Your task to perform on an android device: Install the Weather app Image 0: 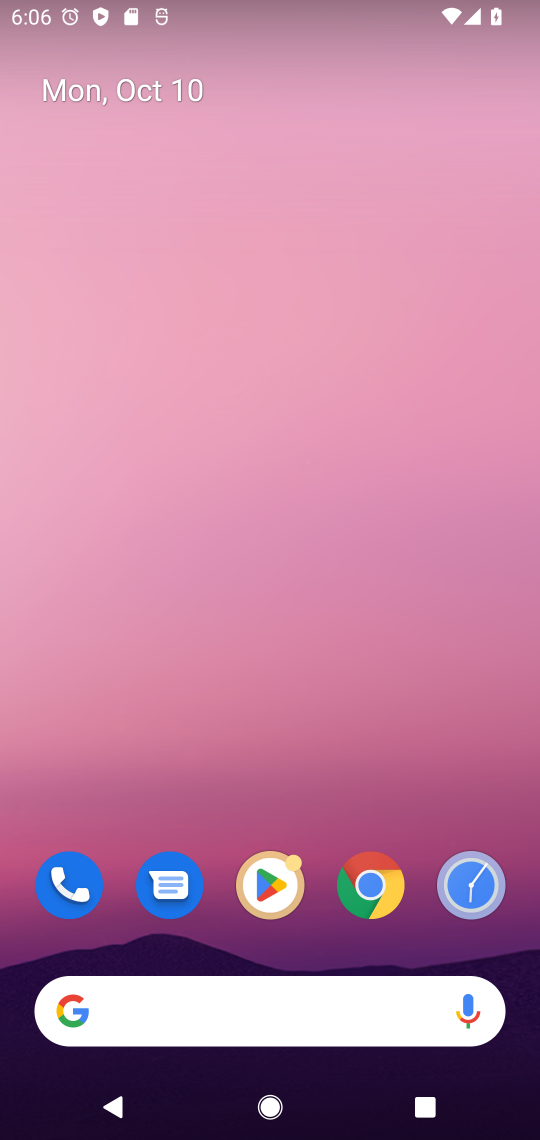
Step 0: click (282, 876)
Your task to perform on an android device: Install the Weather app Image 1: 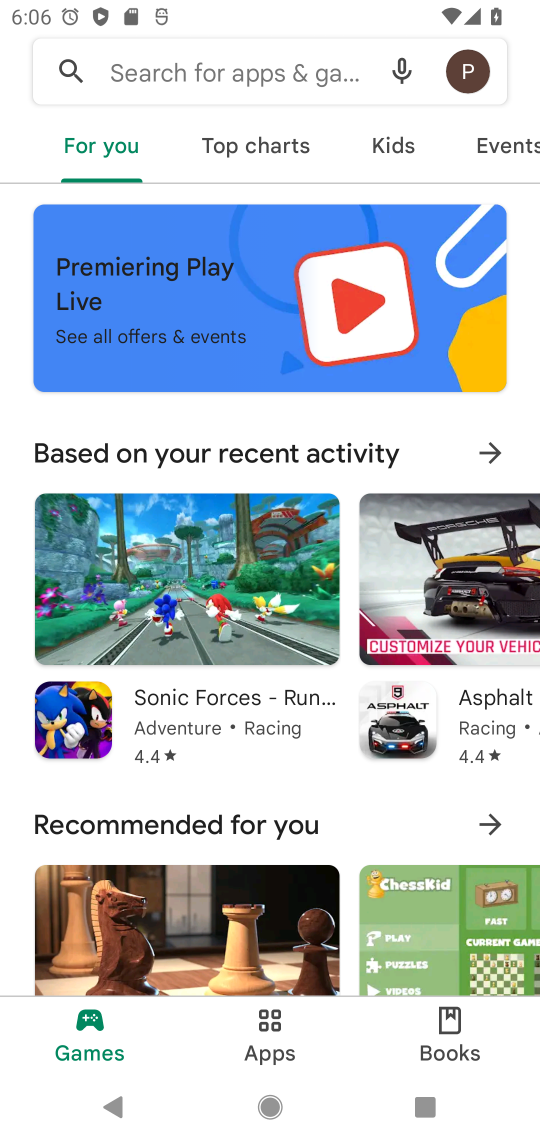
Step 1: click (288, 78)
Your task to perform on an android device: Install the Weather app Image 2: 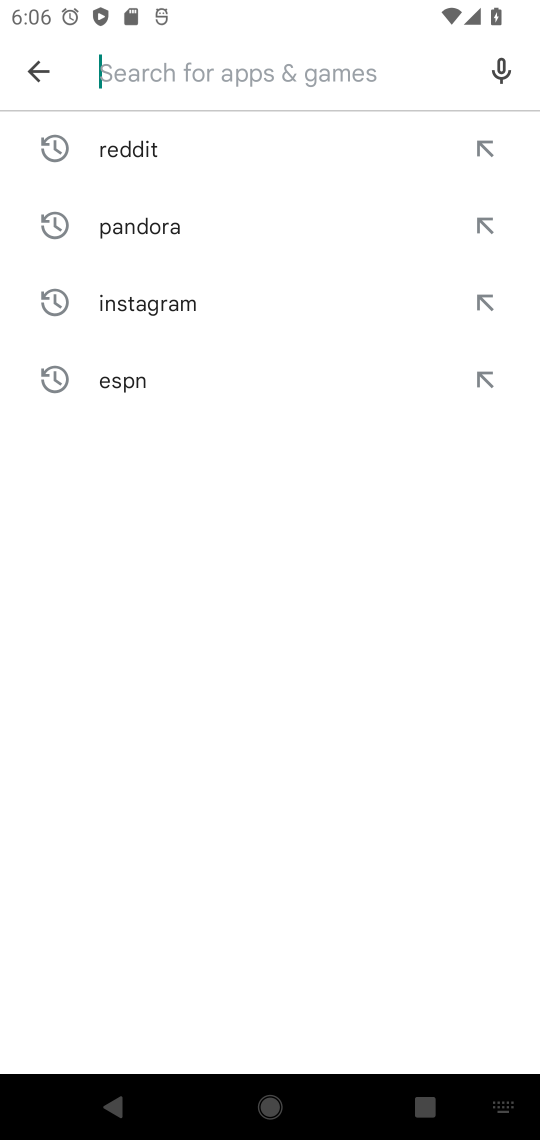
Step 2: type "Weather"
Your task to perform on an android device: Install the Weather app Image 3: 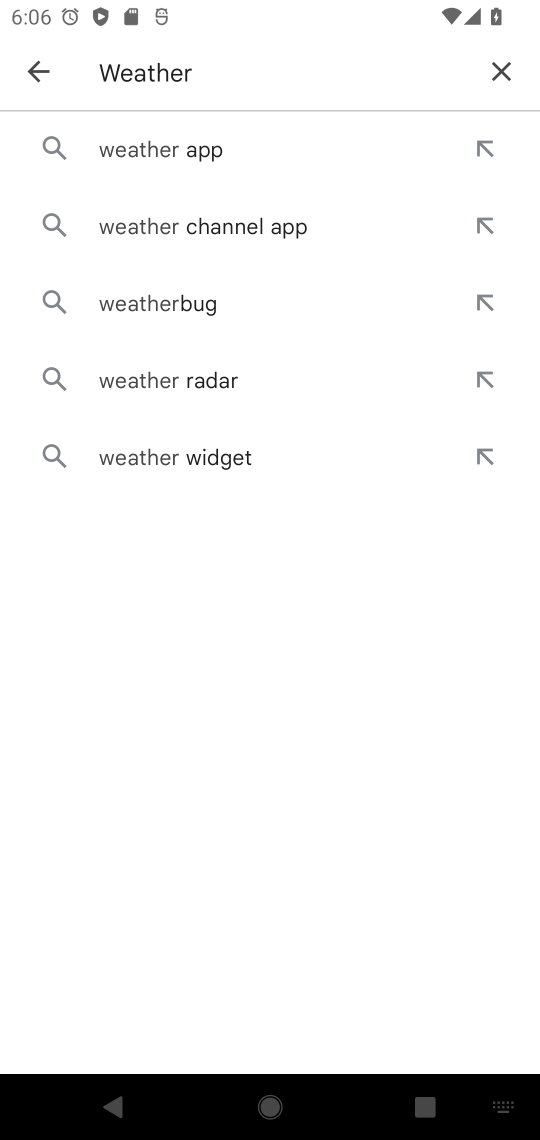
Step 3: click (232, 152)
Your task to perform on an android device: Install the Weather app Image 4: 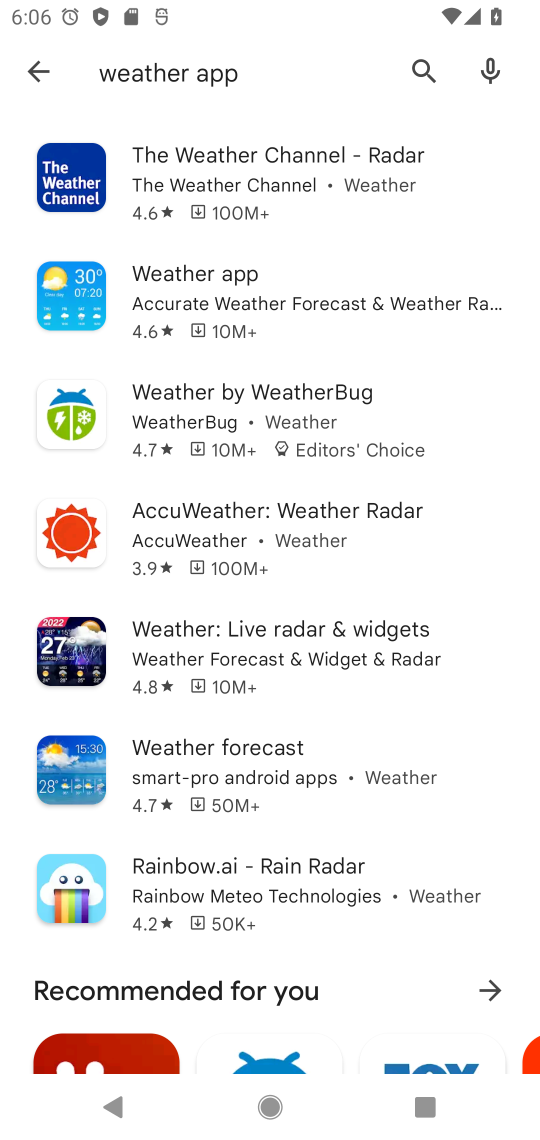
Step 4: click (174, 273)
Your task to perform on an android device: Install the Weather app Image 5: 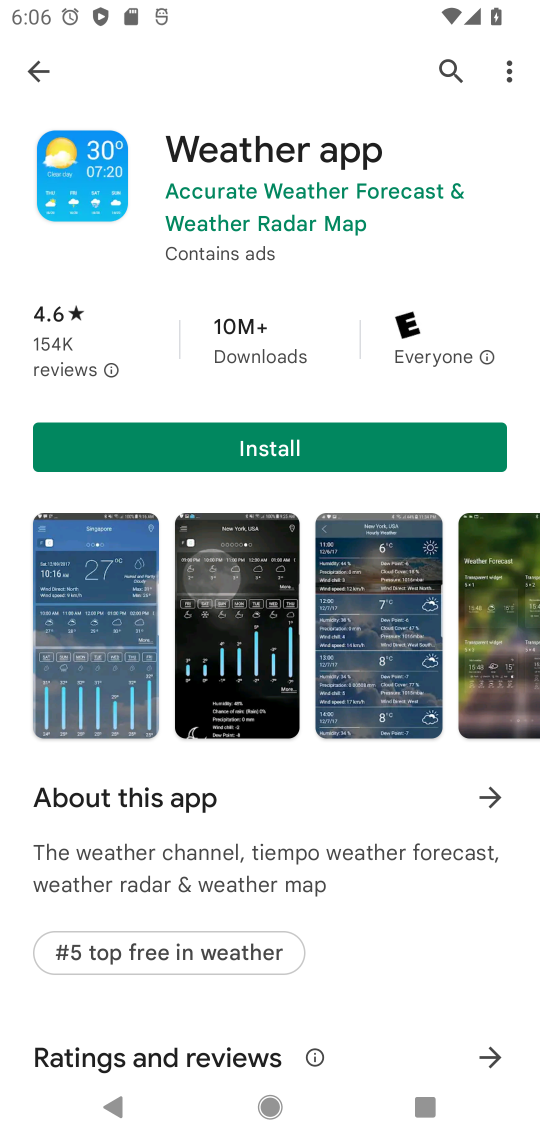
Step 5: click (296, 446)
Your task to perform on an android device: Install the Weather app Image 6: 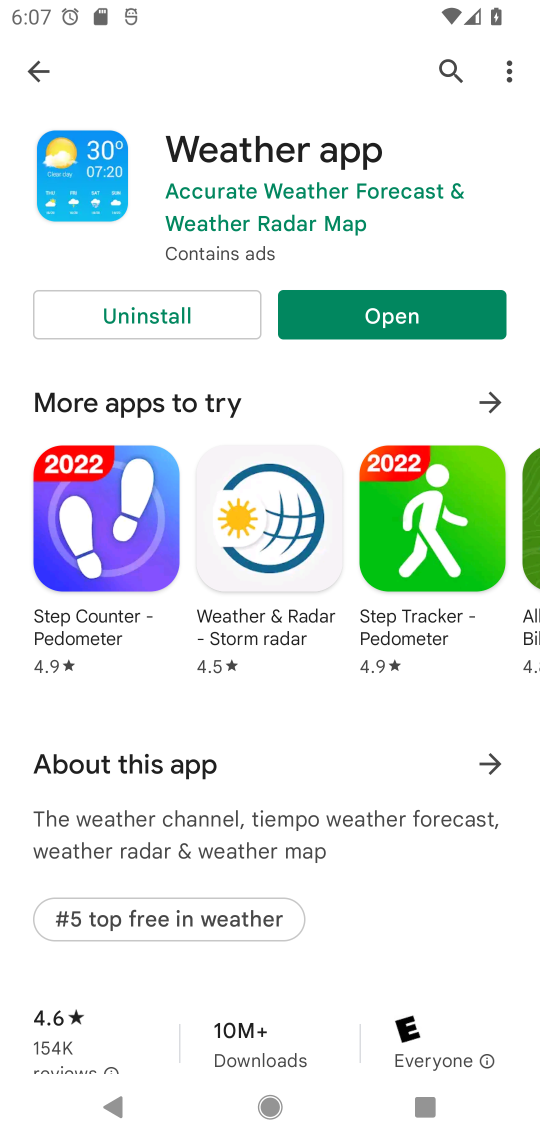
Step 6: task complete